Your task to perform on an android device: clear history in the chrome app Image 0: 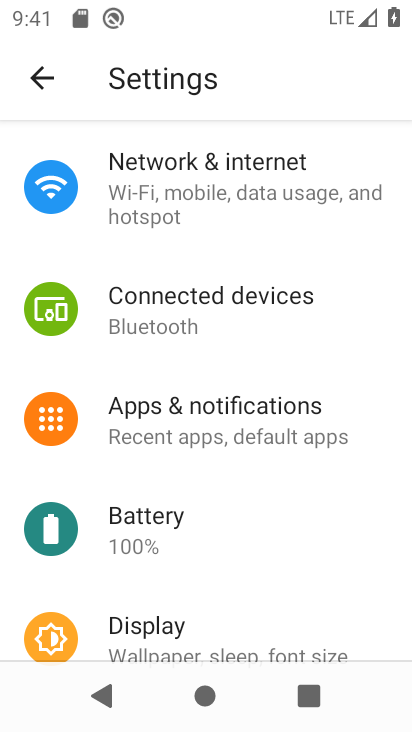
Step 0: press home button
Your task to perform on an android device: clear history in the chrome app Image 1: 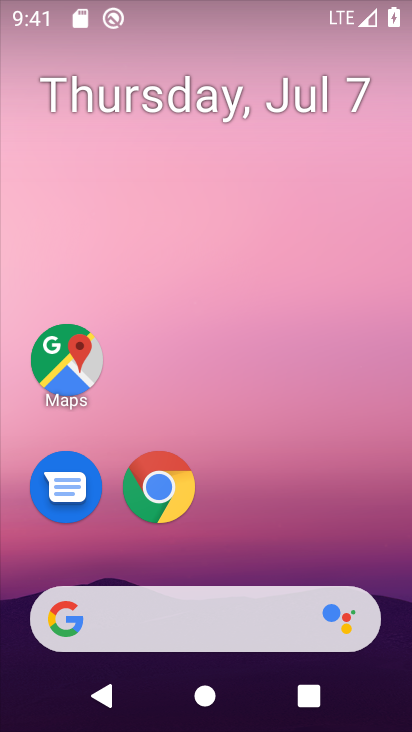
Step 1: drag from (350, 555) to (377, 183)
Your task to perform on an android device: clear history in the chrome app Image 2: 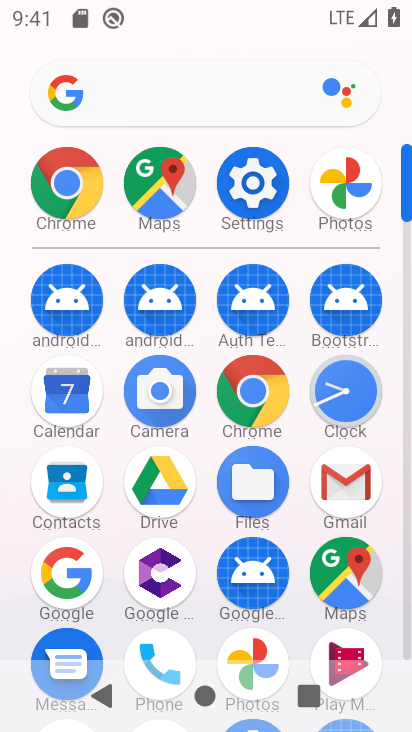
Step 2: click (265, 396)
Your task to perform on an android device: clear history in the chrome app Image 3: 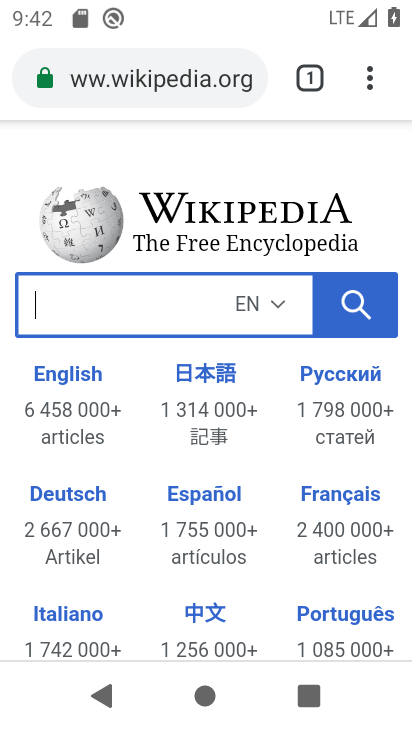
Step 3: click (369, 91)
Your task to perform on an android device: clear history in the chrome app Image 4: 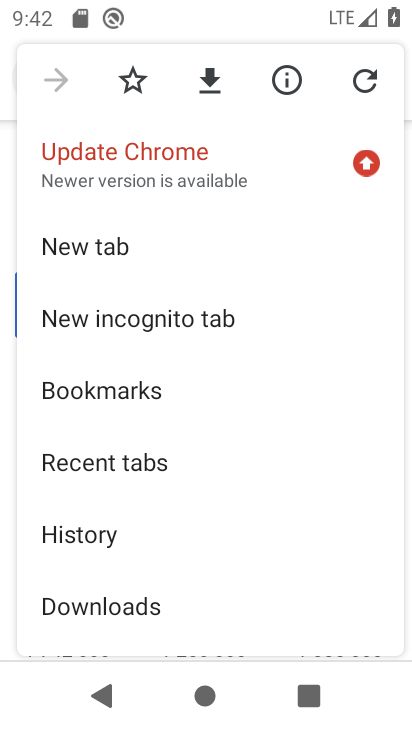
Step 4: drag from (268, 475) to (285, 375)
Your task to perform on an android device: clear history in the chrome app Image 5: 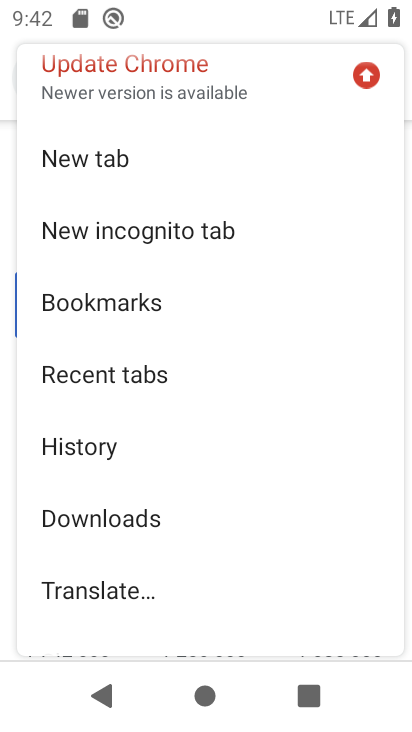
Step 5: drag from (289, 496) to (297, 311)
Your task to perform on an android device: clear history in the chrome app Image 6: 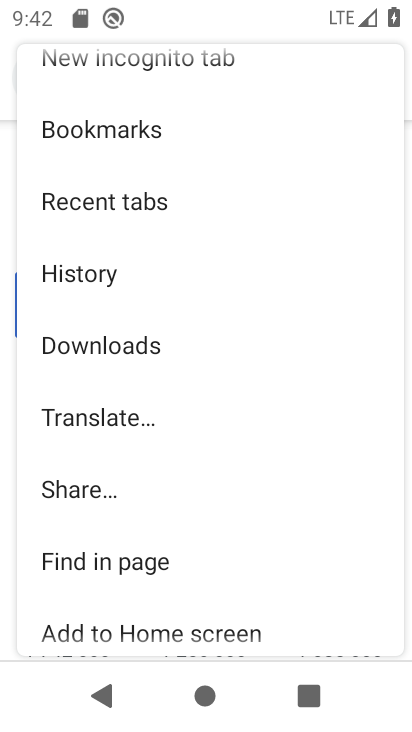
Step 6: drag from (330, 464) to (343, 303)
Your task to perform on an android device: clear history in the chrome app Image 7: 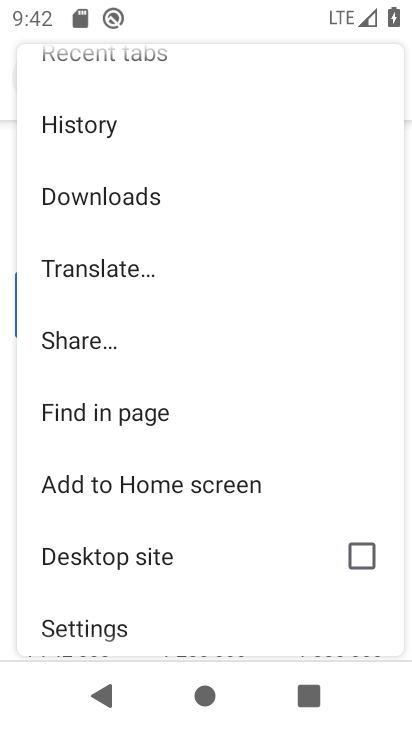
Step 7: click (128, 139)
Your task to perform on an android device: clear history in the chrome app Image 8: 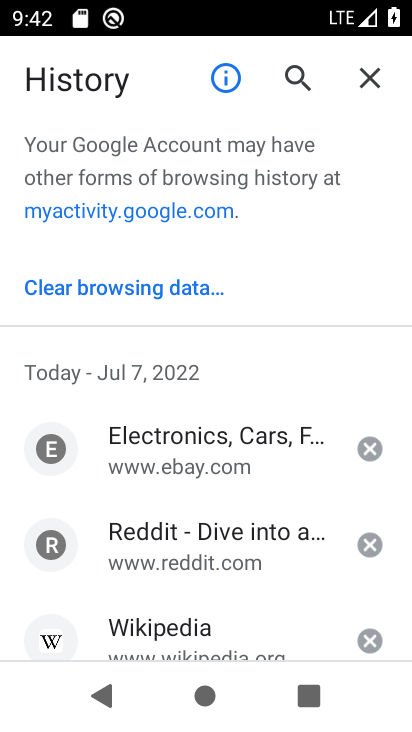
Step 8: click (159, 293)
Your task to perform on an android device: clear history in the chrome app Image 9: 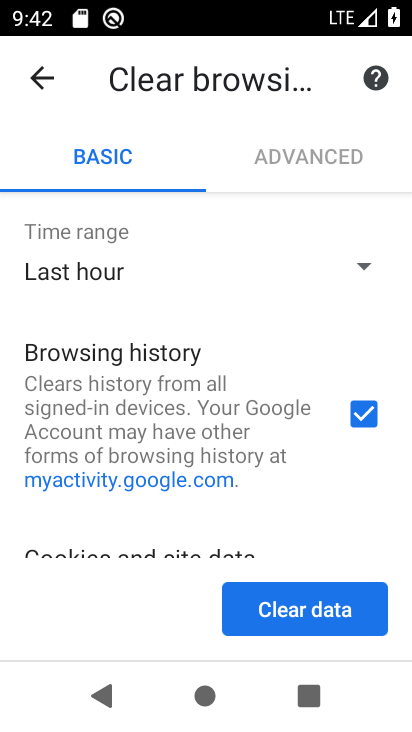
Step 9: click (309, 620)
Your task to perform on an android device: clear history in the chrome app Image 10: 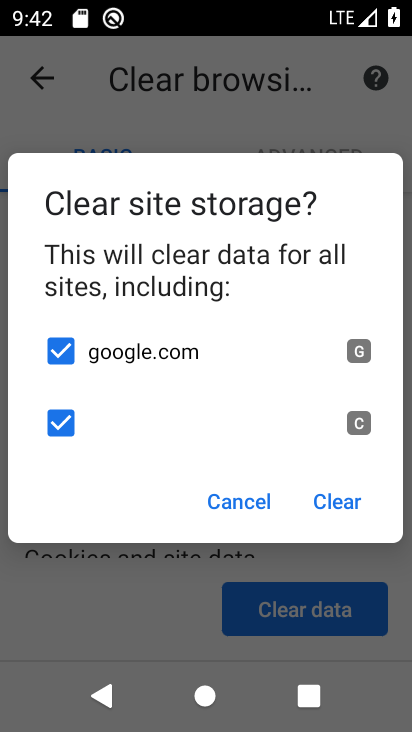
Step 10: click (349, 509)
Your task to perform on an android device: clear history in the chrome app Image 11: 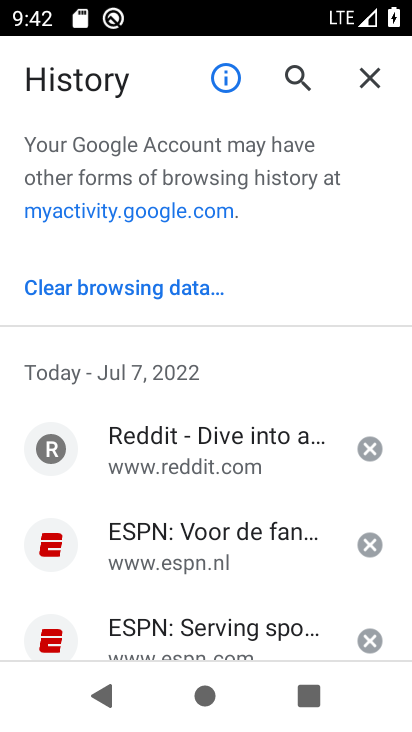
Step 11: click (192, 288)
Your task to perform on an android device: clear history in the chrome app Image 12: 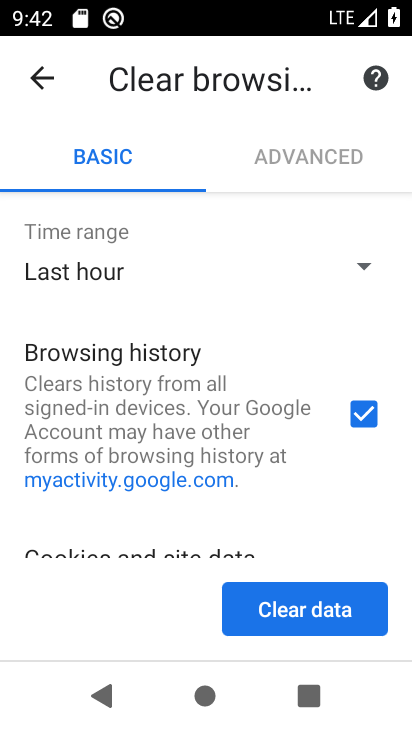
Step 12: drag from (295, 468) to (308, 280)
Your task to perform on an android device: clear history in the chrome app Image 13: 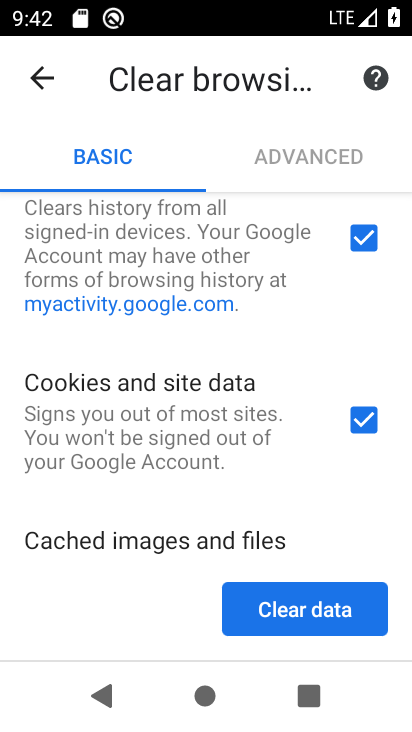
Step 13: drag from (307, 478) to (316, 249)
Your task to perform on an android device: clear history in the chrome app Image 14: 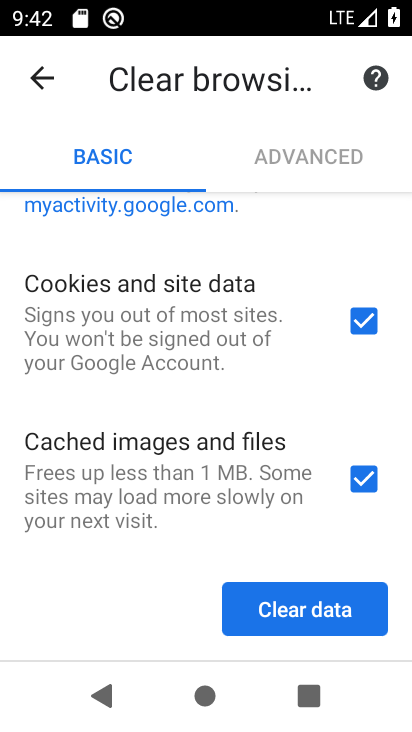
Step 14: click (334, 613)
Your task to perform on an android device: clear history in the chrome app Image 15: 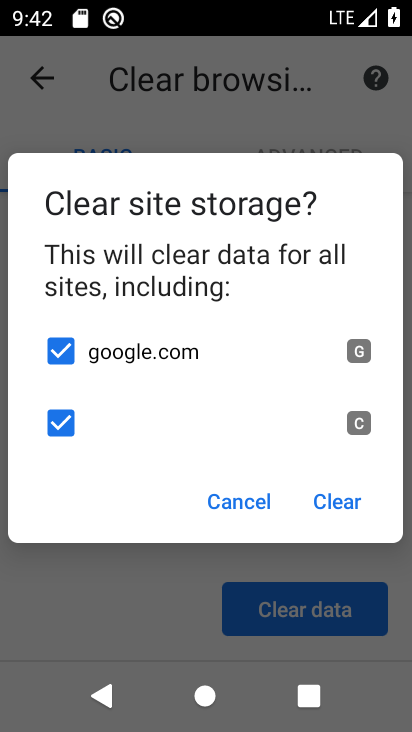
Step 15: click (329, 502)
Your task to perform on an android device: clear history in the chrome app Image 16: 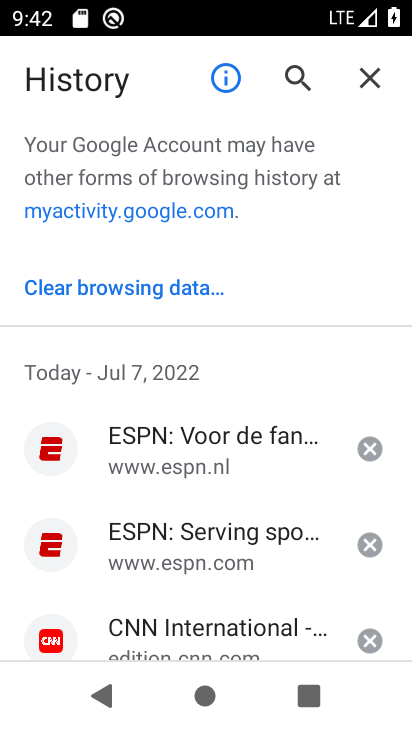
Step 16: click (213, 288)
Your task to perform on an android device: clear history in the chrome app Image 17: 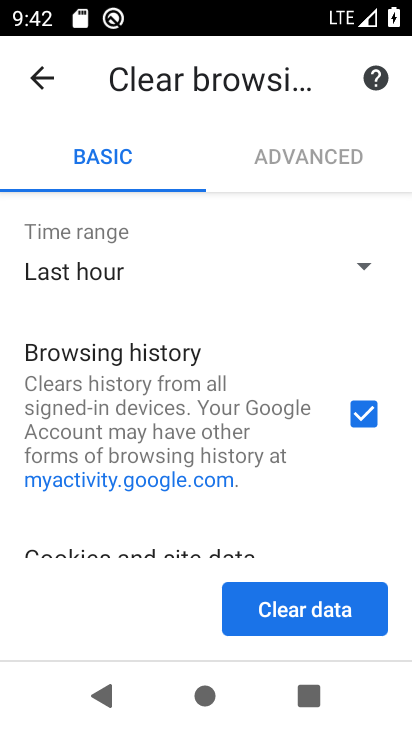
Step 17: click (294, 163)
Your task to perform on an android device: clear history in the chrome app Image 18: 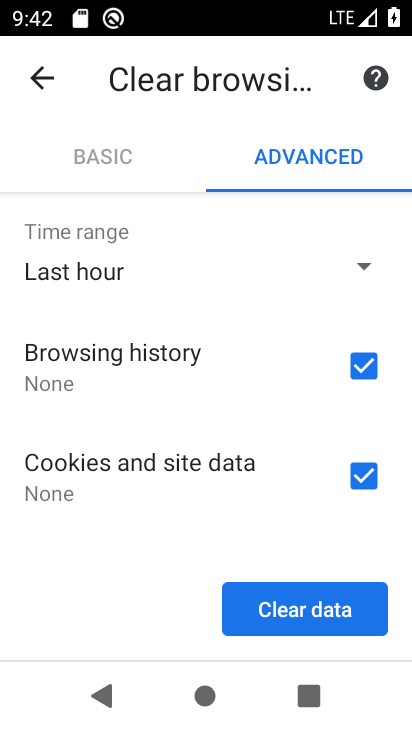
Step 18: click (122, 160)
Your task to perform on an android device: clear history in the chrome app Image 19: 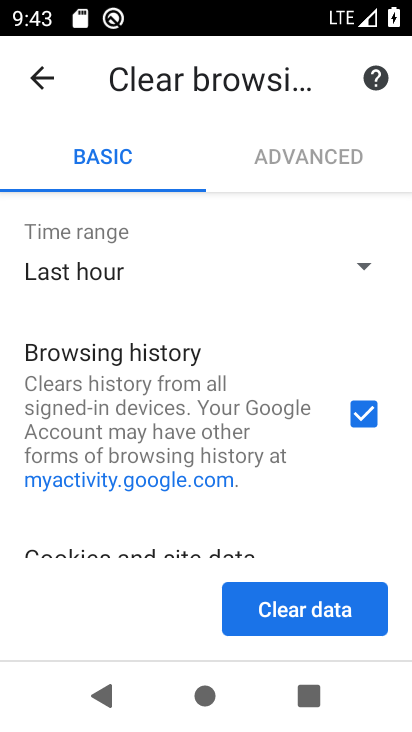
Step 19: drag from (299, 503) to (288, 243)
Your task to perform on an android device: clear history in the chrome app Image 20: 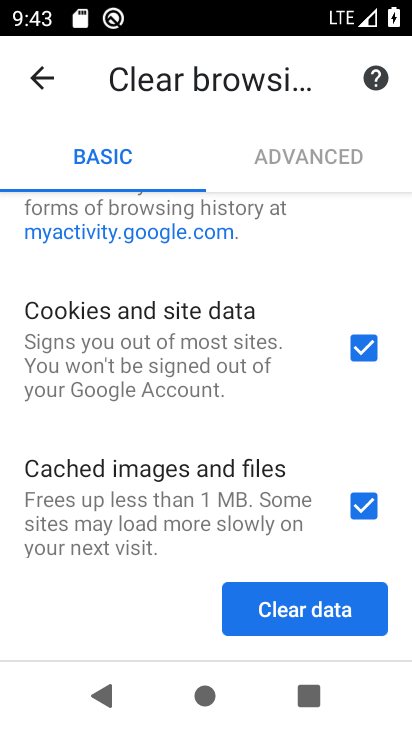
Step 20: drag from (308, 477) to (298, 227)
Your task to perform on an android device: clear history in the chrome app Image 21: 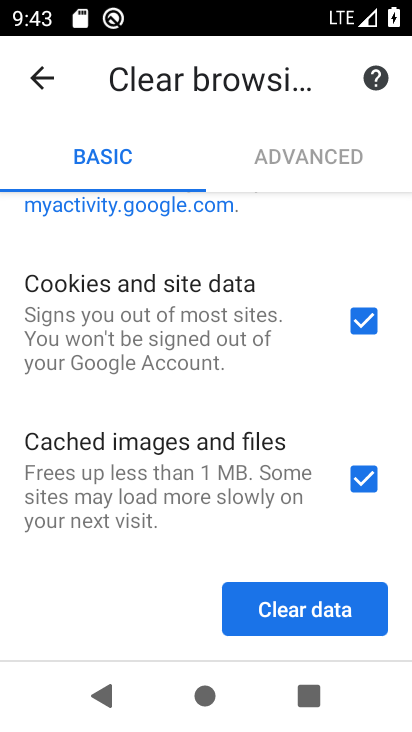
Step 21: click (314, 617)
Your task to perform on an android device: clear history in the chrome app Image 22: 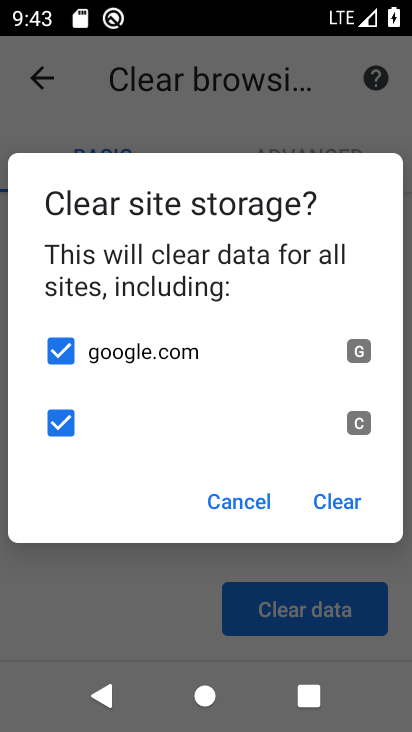
Step 22: click (353, 496)
Your task to perform on an android device: clear history in the chrome app Image 23: 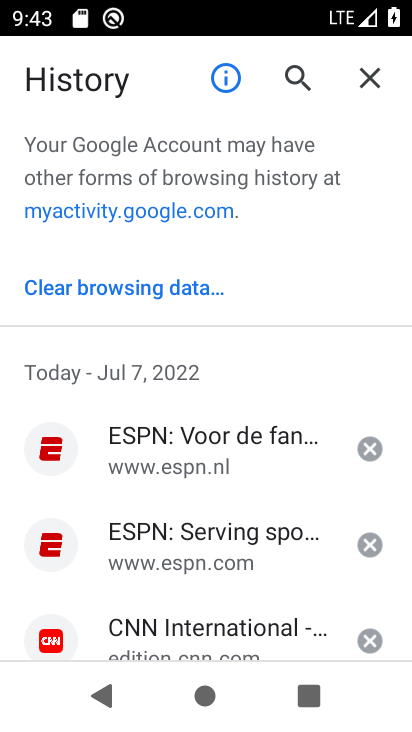
Step 23: click (154, 295)
Your task to perform on an android device: clear history in the chrome app Image 24: 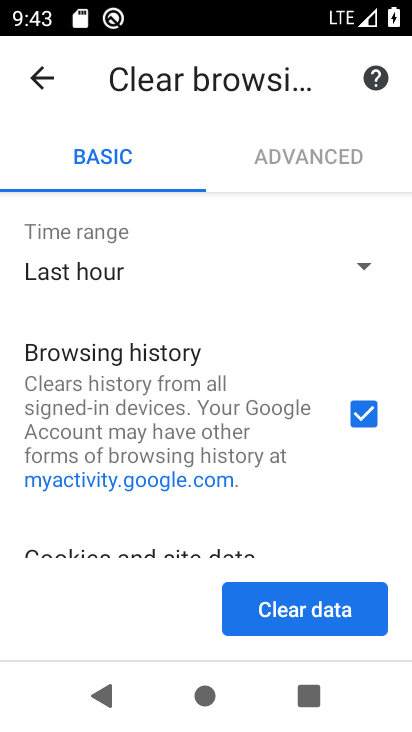
Step 24: click (354, 266)
Your task to perform on an android device: clear history in the chrome app Image 25: 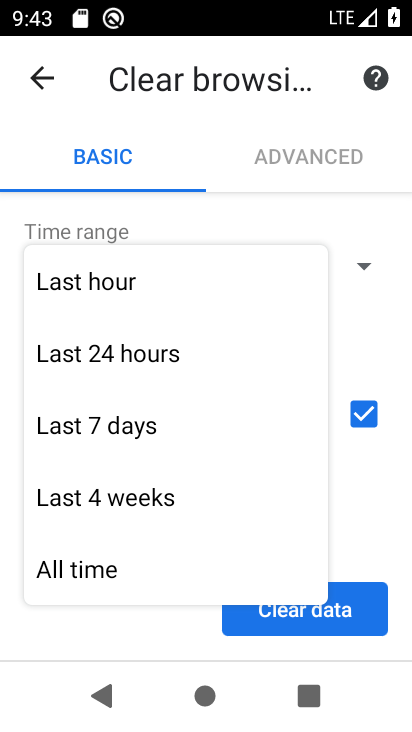
Step 25: click (106, 563)
Your task to perform on an android device: clear history in the chrome app Image 26: 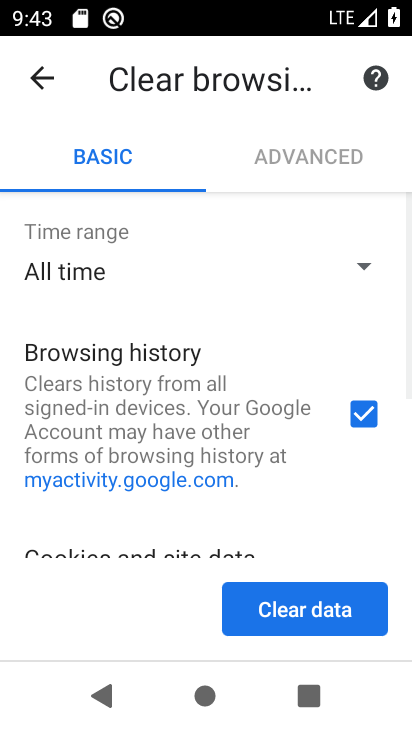
Step 26: click (311, 611)
Your task to perform on an android device: clear history in the chrome app Image 27: 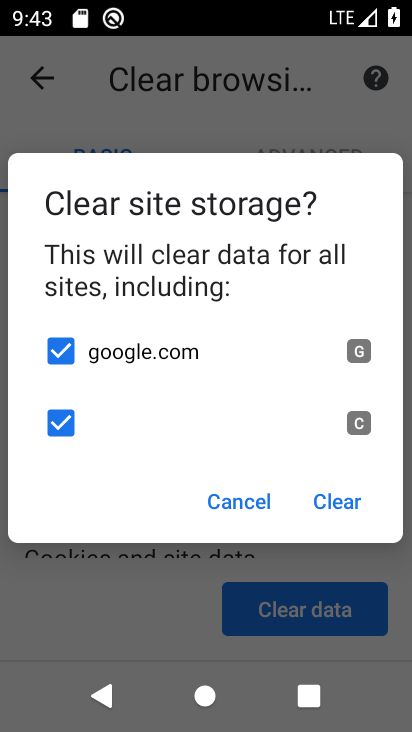
Step 27: click (327, 518)
Your task to perform on an android device: clear history in the chrome app Image 28: 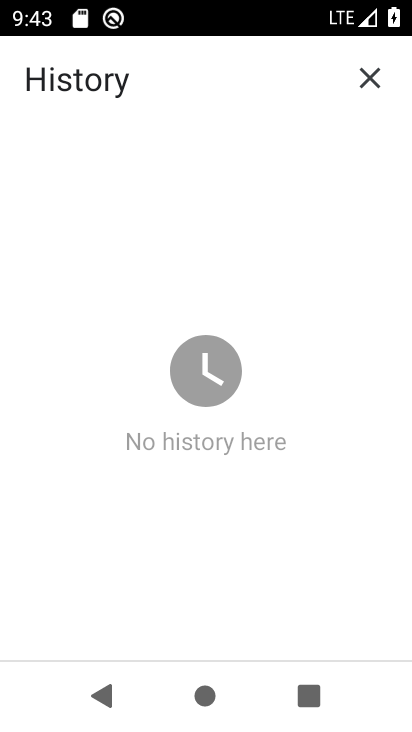
Step 28: task complete